Your task to perform on an android device: Go to calendar. Show me events next week Image 0: 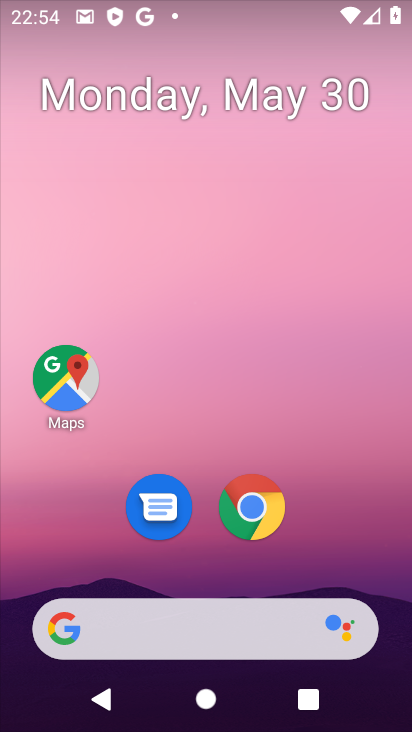
Step 0: drag from (389, 567) to (365, 142)
Your task to perform on an android device: Go to calendar. Show me events next week Image 1: 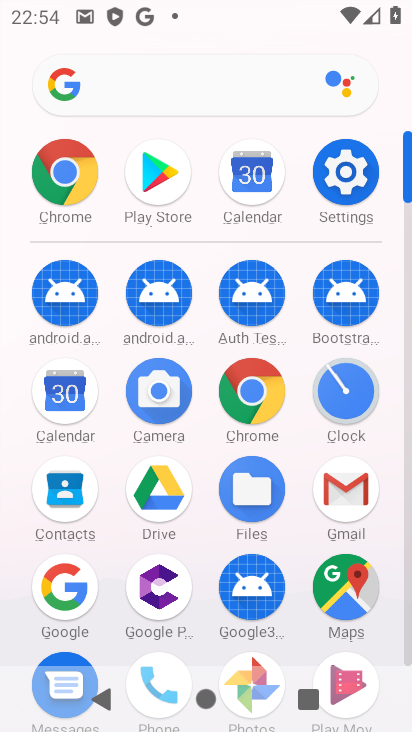
Step 1: click (99, 425)
Your task to perform on an android device: Go to calendar. Show me events next week Image 2: 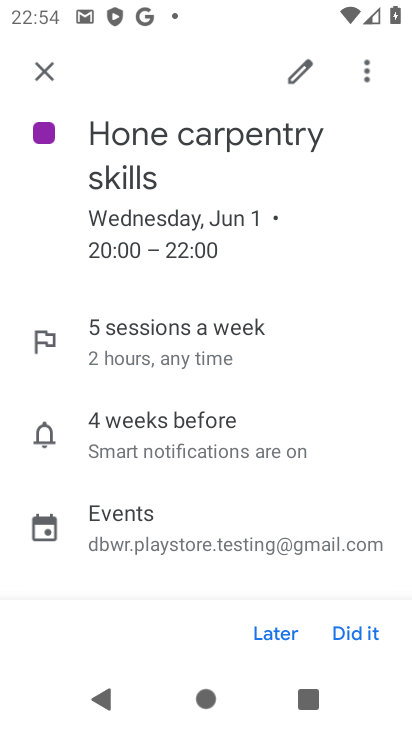
Step 2: click (44, 64)
Your task to perform on an android device: Go to calendar. Show me events next week Image 3: 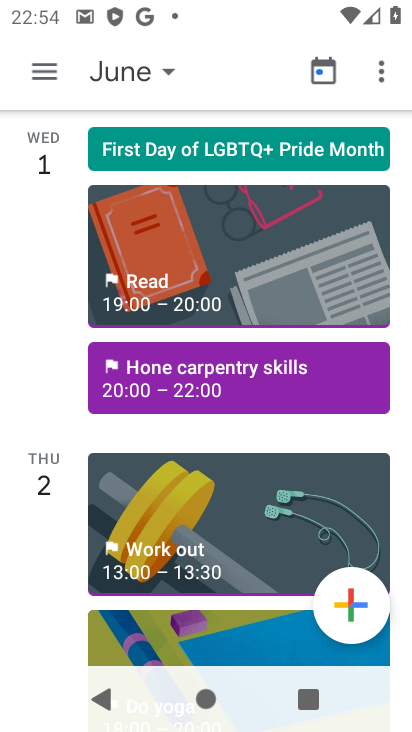
Step 3: task complete